Your task to perform on an android device: find snoozed emails in the gmail app Image 0: 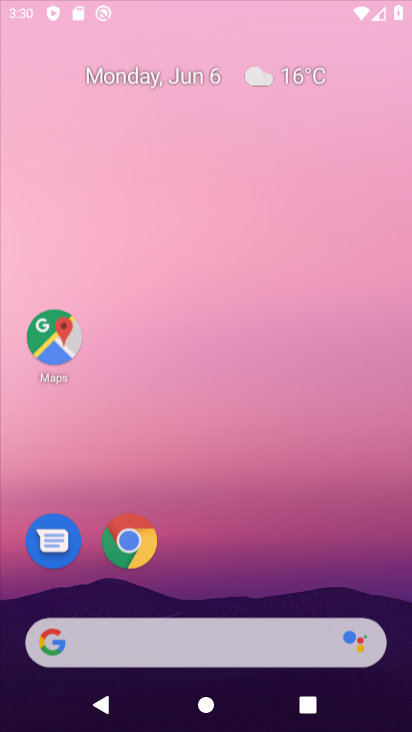
Step 0: press home button
Your task to perform on an android device: find snoozed emails in the gmail app Image 1: 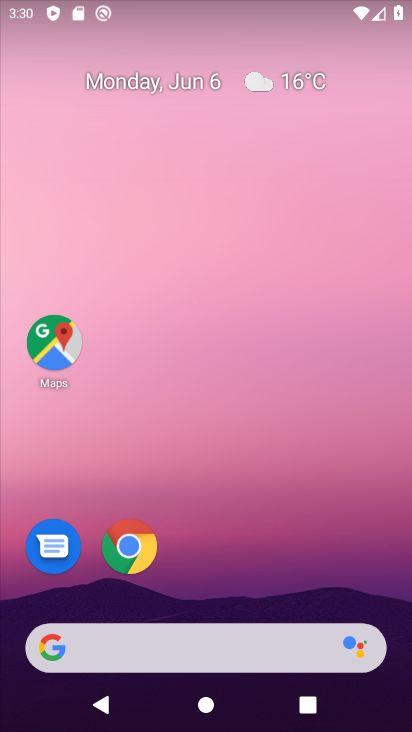
Step 1: drag from (279, 542) to (319, 5)
Your task to perform on an android device: find snoozed emails in the gmail app Image 2: 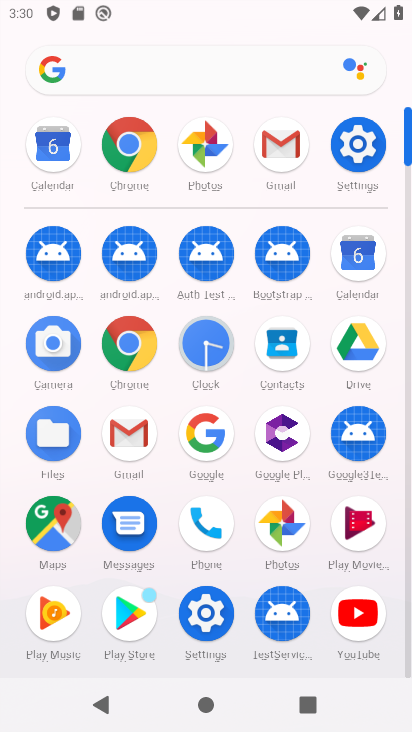
Step 2: click (284, 152)
Your task to perform on an android device: find snoozed emails in the gmail app Image 3: 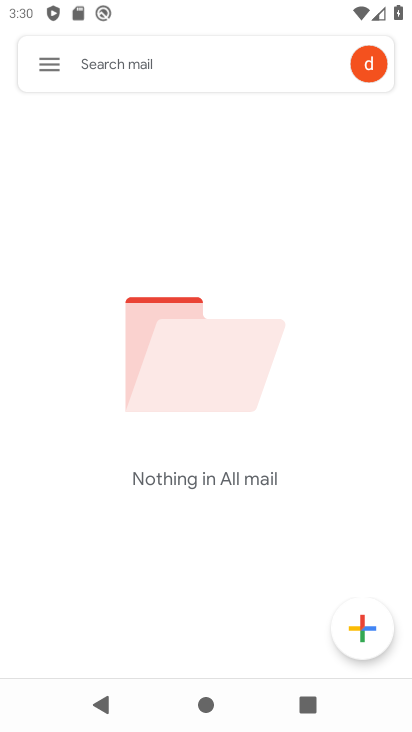
Step 3: click (54, 70)
Your task to perform on an android device: find snoozed emails in the gmail app Image 4: 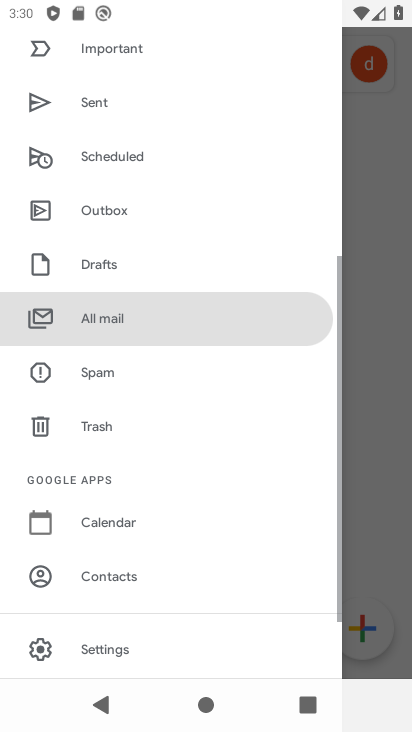
Step 4: drag from (136, 283) to (129, 703)
Your task to perform on an android device: find snoozed emails in the gmail app Image 5: 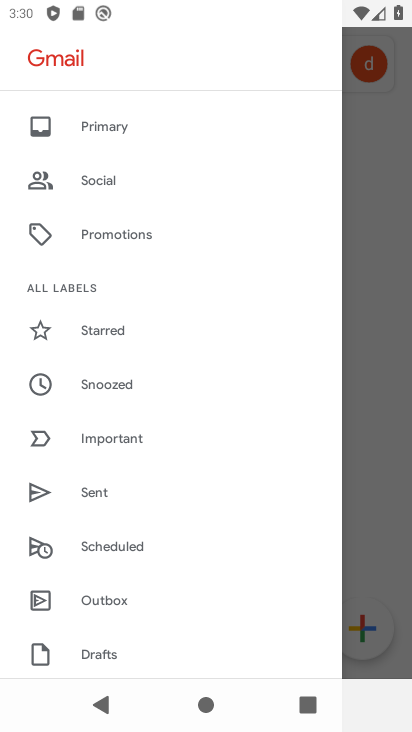
Step 5: click (119, 386)
Your task to perform on an android device: find snoozed emails in the gmail app Image 6: 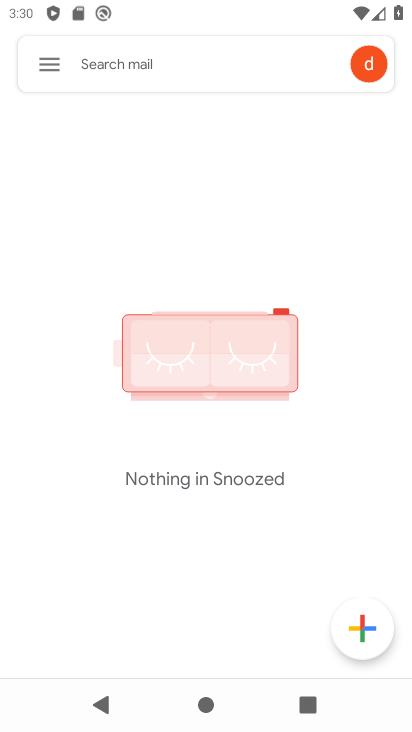
Step 6: task complete